Your task to perform on an android device: Go to notification settings Image 0: 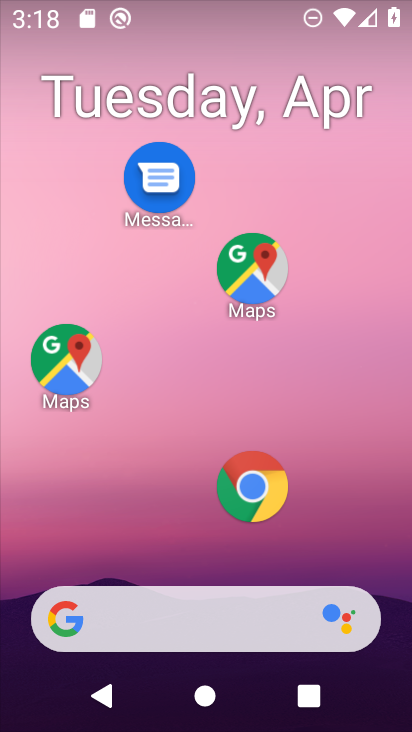
Step 0: drag from (297, 554) to (384, 159)
Your task to perform on an android device: Go to notification settings Image 1: 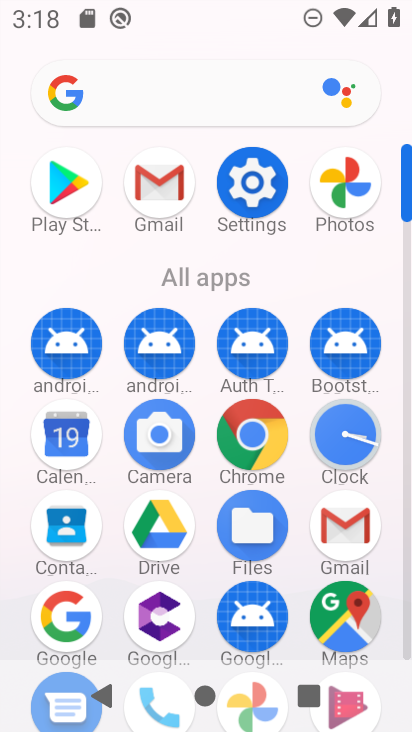
Step 1: click (269, 189)
Your task to perform on an android device: Go to notification settings Image 2: 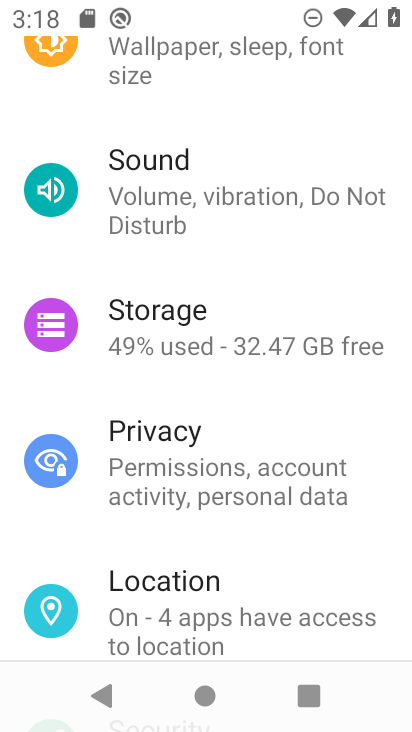
Step 2: drag from (258, 295) to (306, 176)
Your task to perform on an android device: Go to notification settings Image 3: 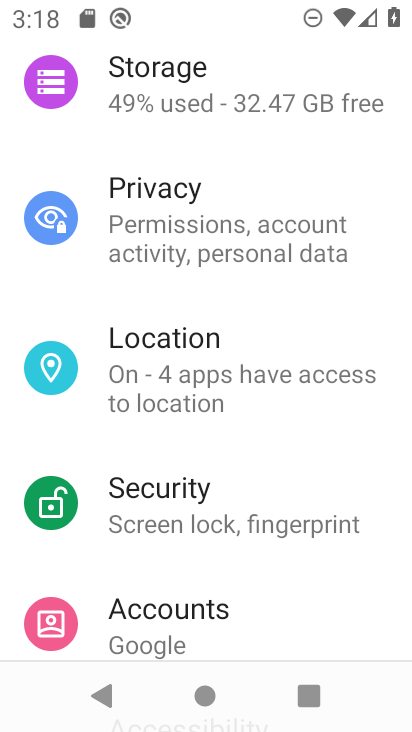
Step 3: drag from (233, 504) to (297, 131)
Your task to perform on an android device: Go to notification settings Image 4: 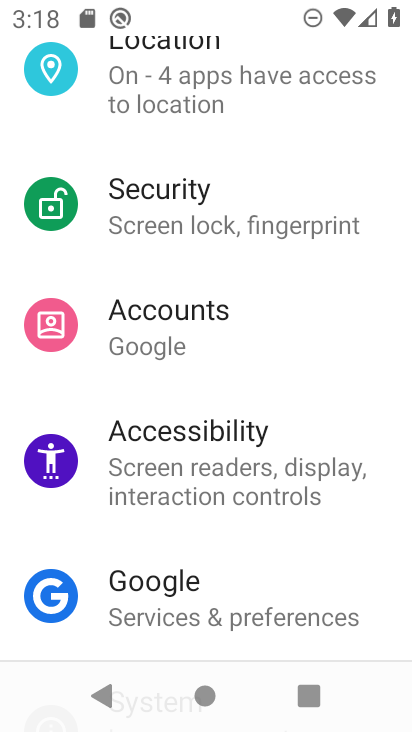
Step 4: drag from (229, 421) to (298, 175)
Your task to perform on an android device: Go to notification settings Image 5: 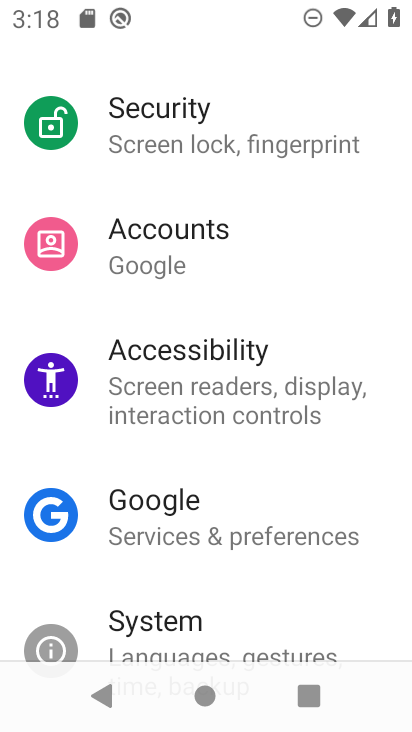
Step 5: drag from (231, 438) to (277, 130)
Your task to perform on an android device: Go to notification settings Image 6: 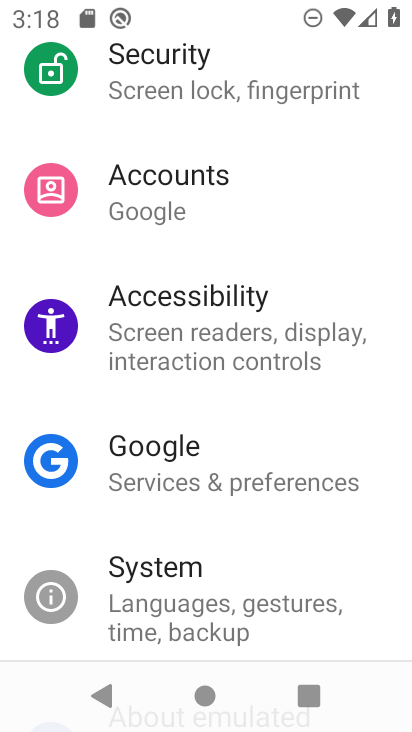
Step 6: drag from (270, 220) to (235, 576)
Your task to perform on an android device: Go to notification settings Image 7: 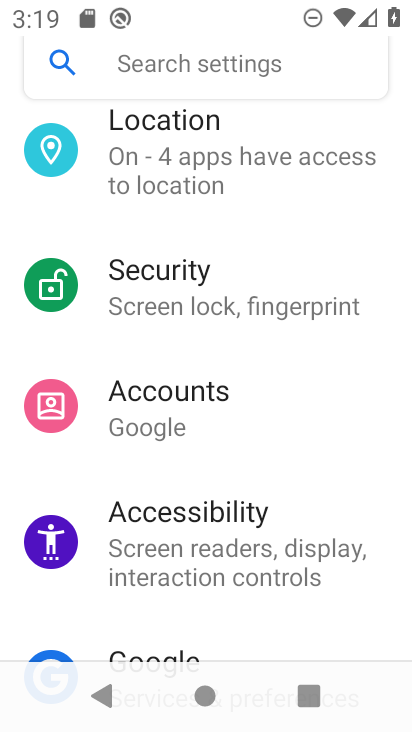
Step 7: drag from (273, 282) to (259, 566)
Your task to perform on an android device: Go to notification settings Image 8: 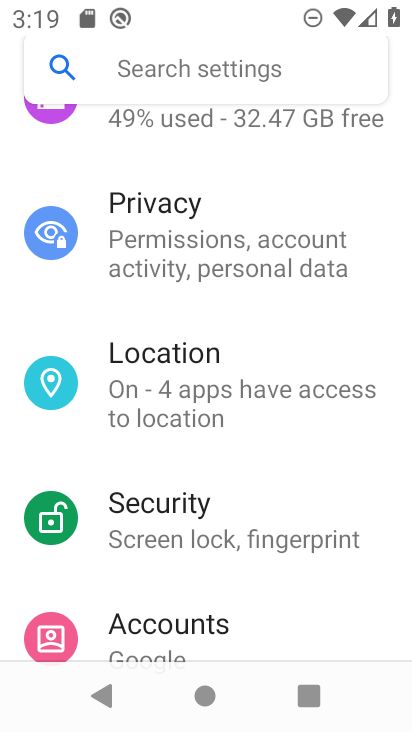
Step 8: drag from (263, 316) to (264, 467)
Your task to perform on an android device: Go to notification settings Image 9: 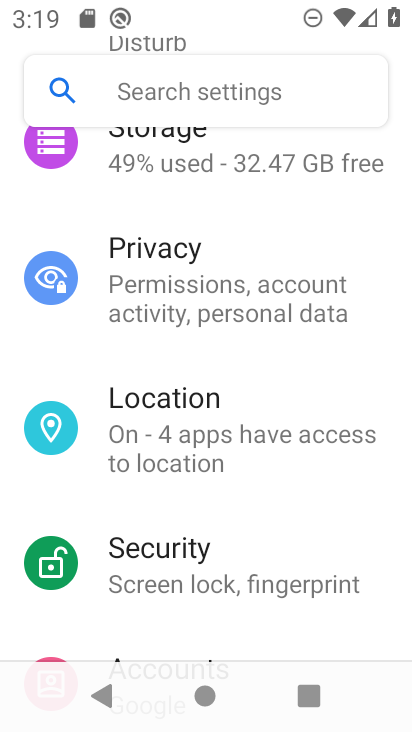
Step 9: drag from (257, 230) to (265, 514)
Your task to perform on an android device: Go to notification settings Image 10: 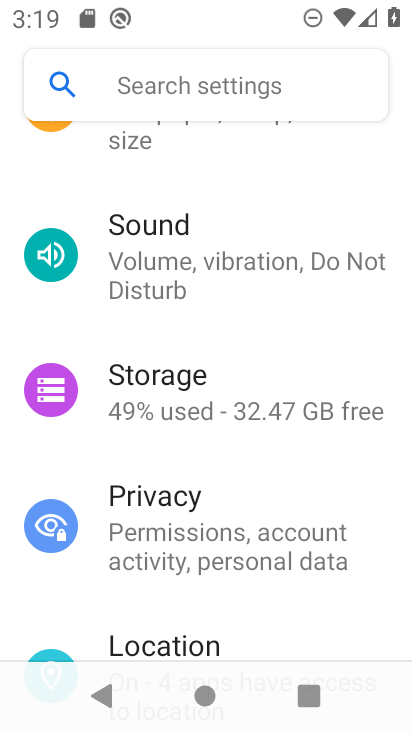
Step 10: drag from (255, 297) to (269, 554)
Your task to perform on an android device: Go to notification settings Image 11: 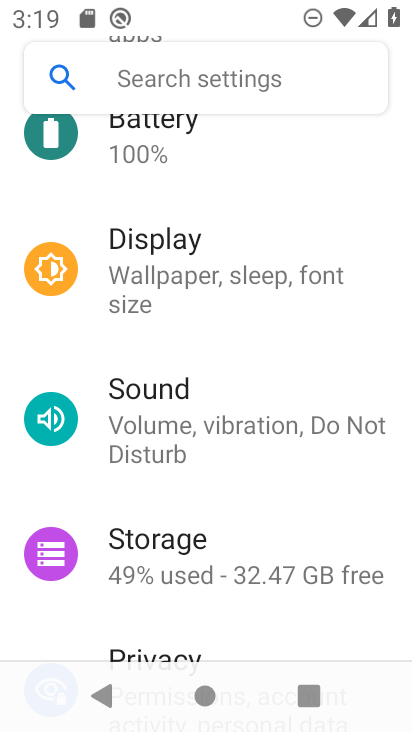
Step 11: drag from (269, 276) to (266, 591)
Your task to perform on an android device: Go to notification settings Image 12: 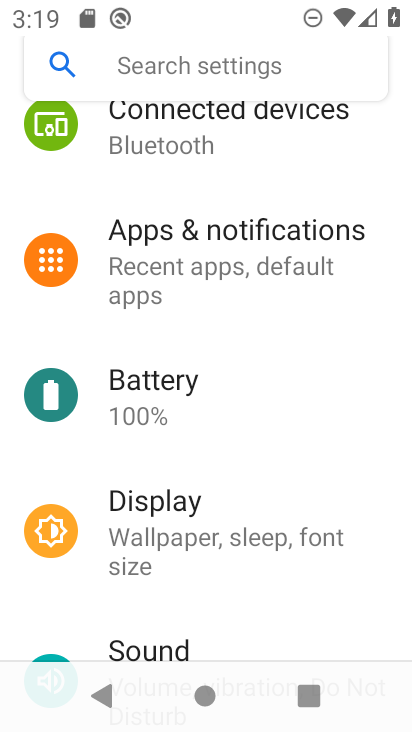
Step 12: click (264, 283)
Your task to perform on an android device: Go to notification settings Image 13: 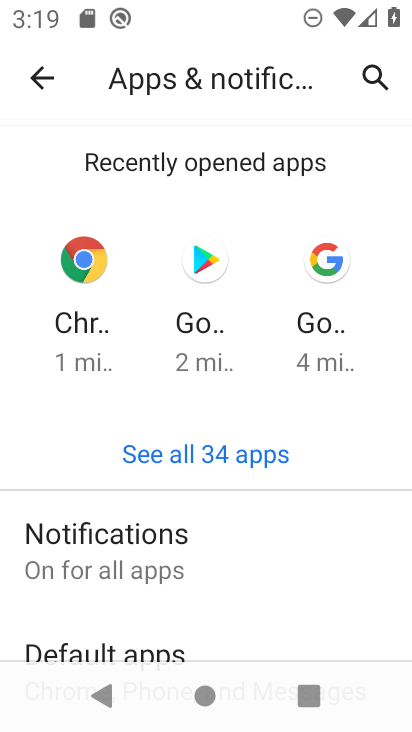
Step 13: task complete